Your task to perform on an android device: Open Google Chrome and click the shortcut for Amazon.com Image 0: 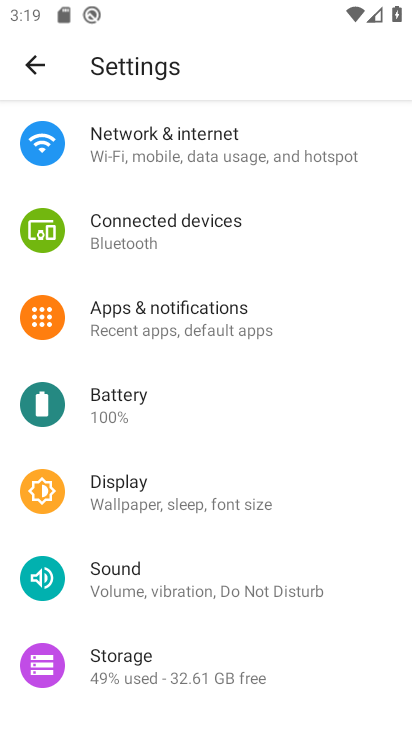
Step 0: press home button
Your task to perform on an android device: Open Google Chrome and click the shortcut for Amazon.com Image 1: 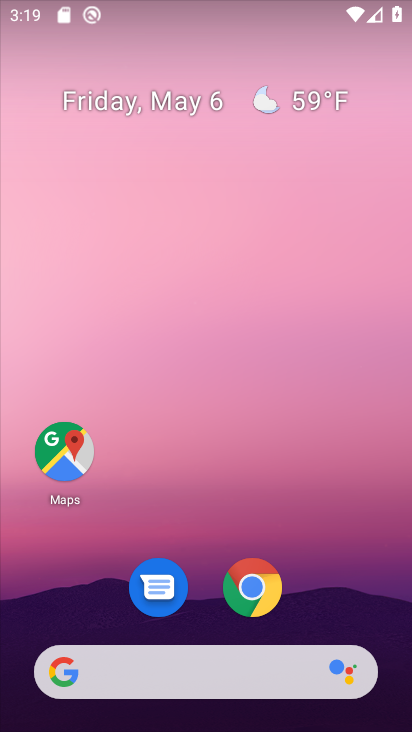
Step 1: drag from (330, 555) to (277, 116)
Your task to perform on an android device: Open Google Chrome and click the shortcut for Amazon.com Image 2: 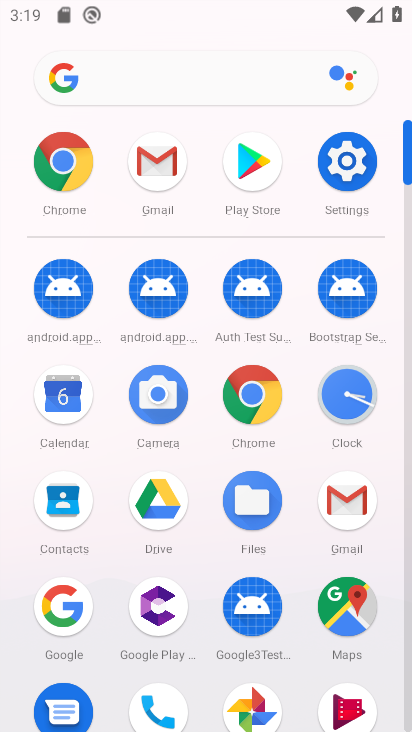
Step 2: click (68, 162)
Your task to perform on an android device: Open Google Chrome and click the shortcut for Amazon.com Image 3: 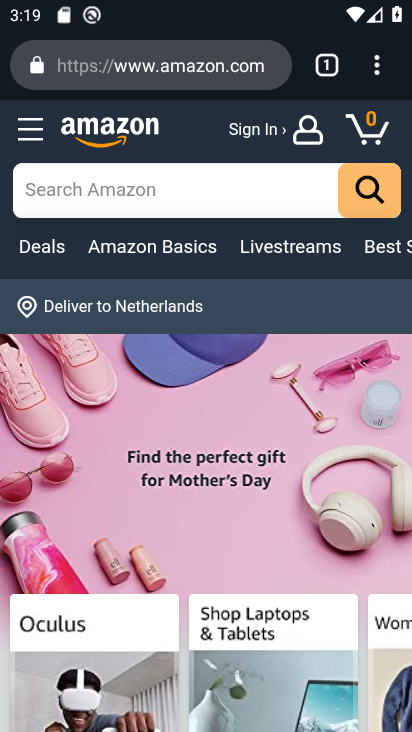
Step 3: drag from (373, 65) to (273, 142)
Your task to perform on an android device: Open Google Chrome and click the shortcut for Amazon.com Image 4: 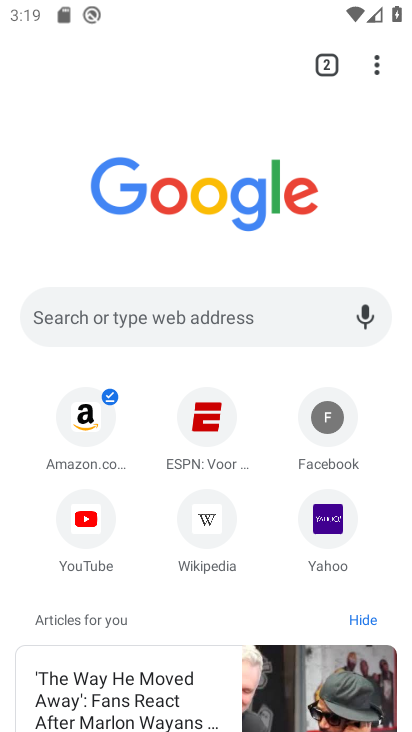
Step 4: click (87, 420)
Your task to perform on an android device: Open Google Chrome and click the shortcut for Amazon.com Image 5: 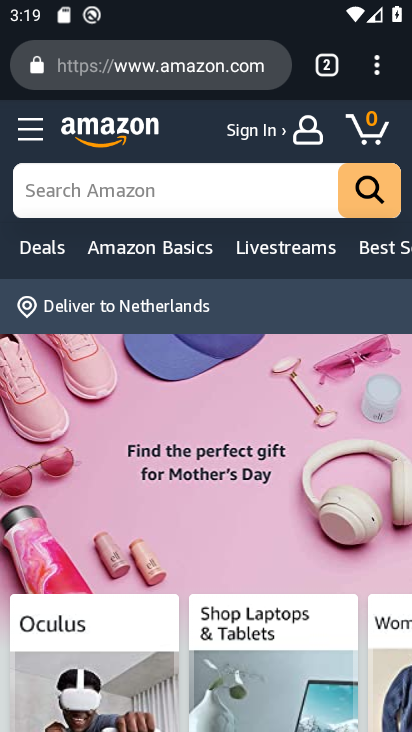
Step 5: task complete